Your task to perform on an android device: What's the weather? Image 0: 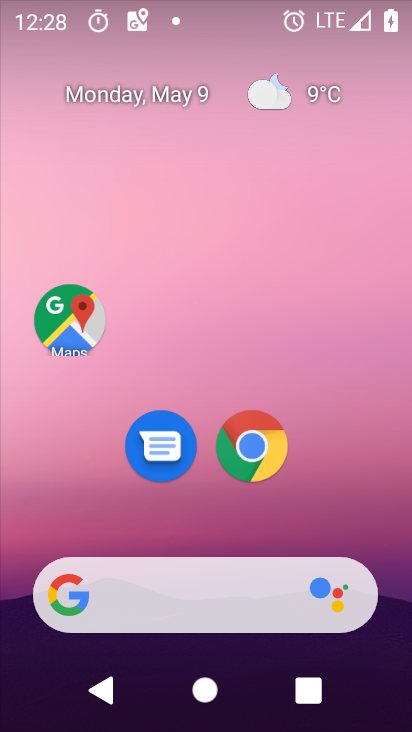
Step 0: click (317, 95)
Your task to perform on an android device: What's the weather? Image 1: 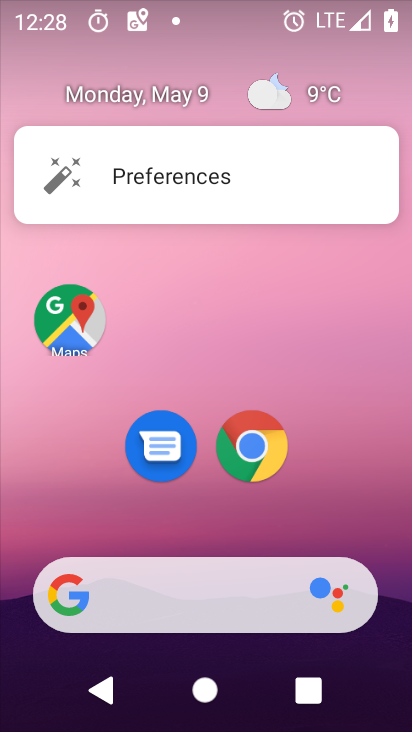
Step 1: click (317, 95)
Your task to perform on an android device: What's the weather? Image 2: 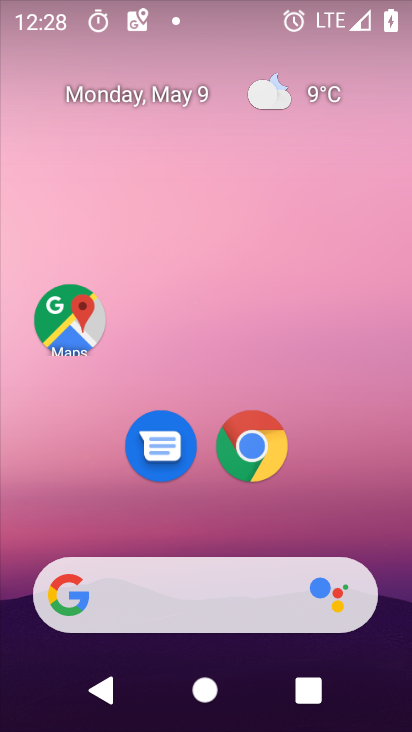
Step 2: click (330, 95)
Your task to perform on an android device: What's the weather? Image 3: 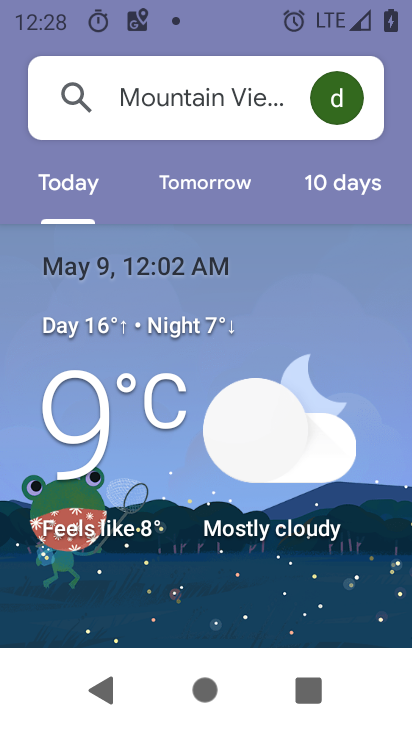
Step 3: task complete